Your task to perform on an android device: open the mobile data screen to see how much data has been used Image 0: 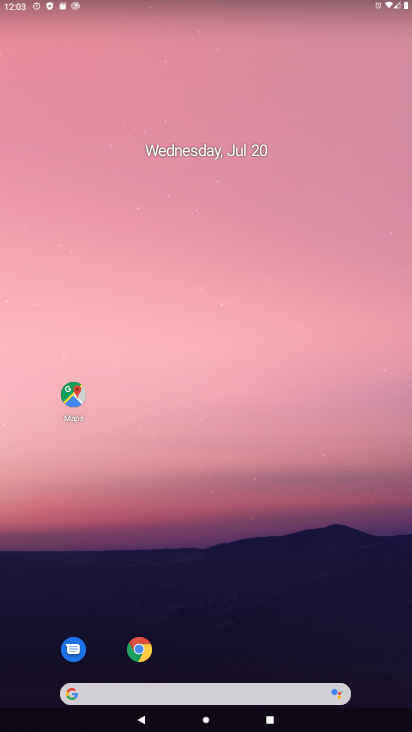
Step 0: drag from (232, 716) to (232, 193)
Your task to perform on an android device: open the mobile data screen to see how much data has been used Image 1: 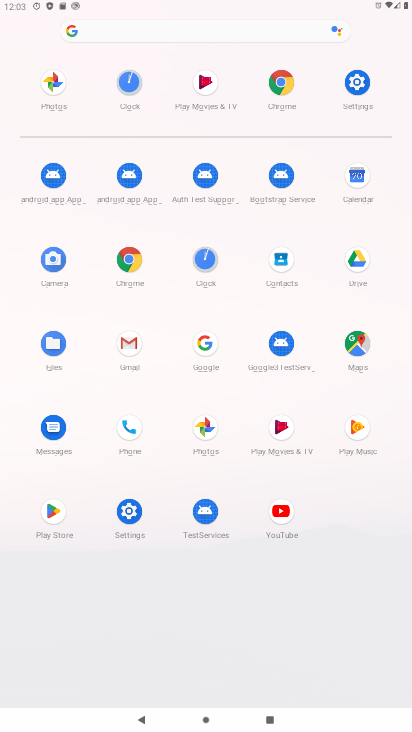
Step 1: click (355, 82)
Your task to perform on an android device: open the mobile data screen to see how much data has been used Image 2: 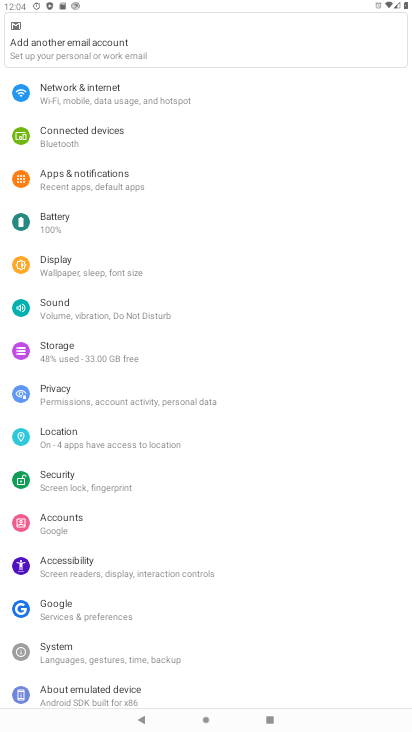
Step 2: click (91, 97)
Your task to perform on an android device: open the mobile data screen to see how much data has been used Image 3: 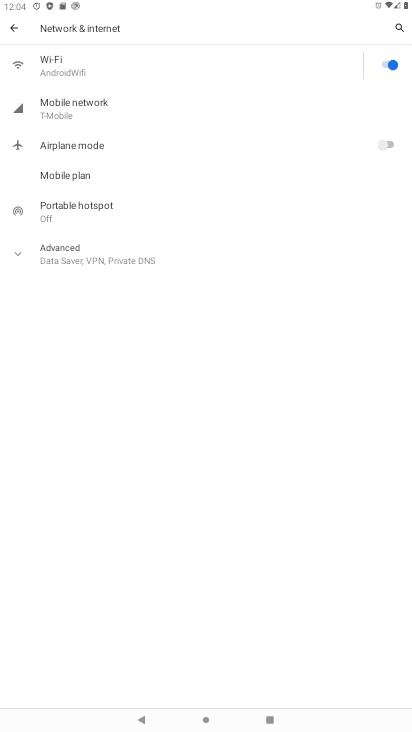
Step 3: click (91, 102)
Your task to perform on an android device: open the mobile data screen to see how much data has been used Image 4: 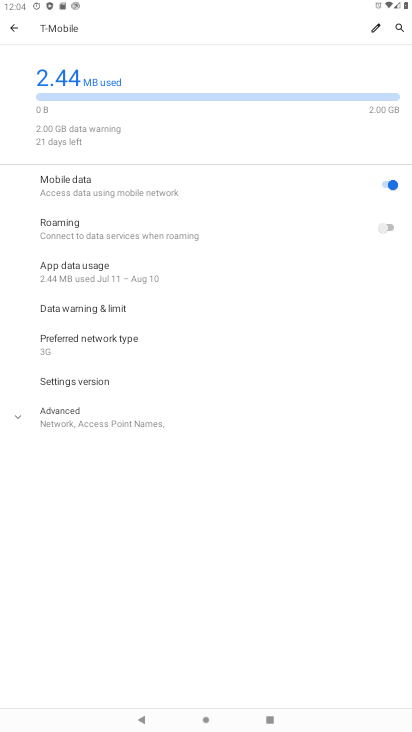
Step 4: click (101, 271)
Your task to perform on an android device: open the mobile data screen to see how much data has been used Image 5: 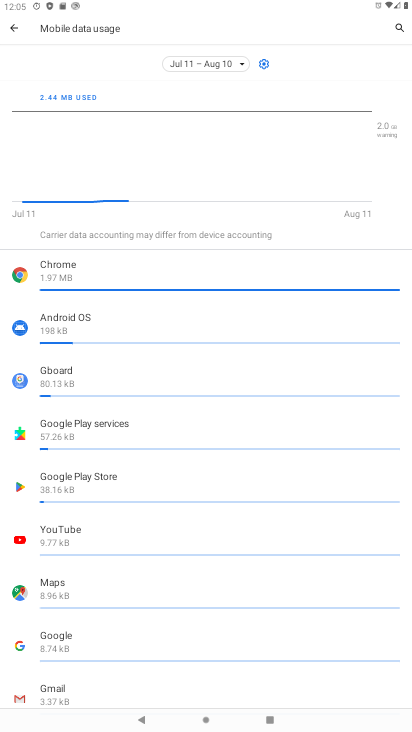
Step 5: task complete